Your task to perform on an android device: Turn on the flashlight Image 0: 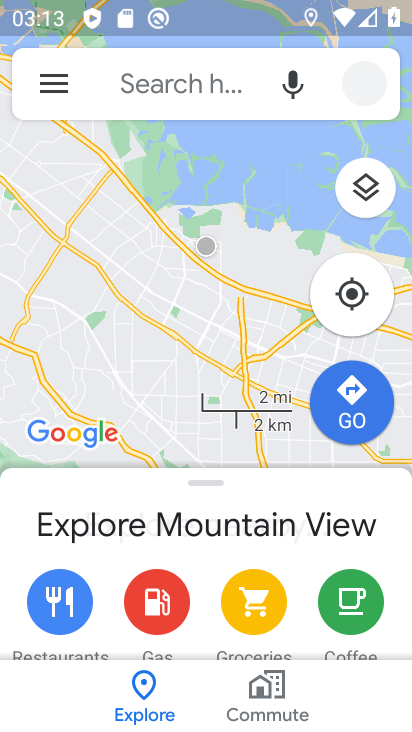
Step 0: drag from (327, 15) to (302, 521)
Your task to perform on an android device: Turn on the flashlight Image 1: 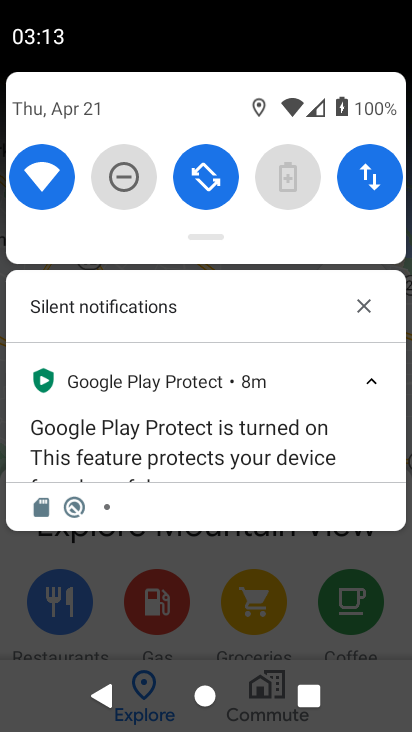
Step 1: drag from (241, 219) to (228, 569)
Your task to perform on an android device: Turn on the flashlight Image 2: 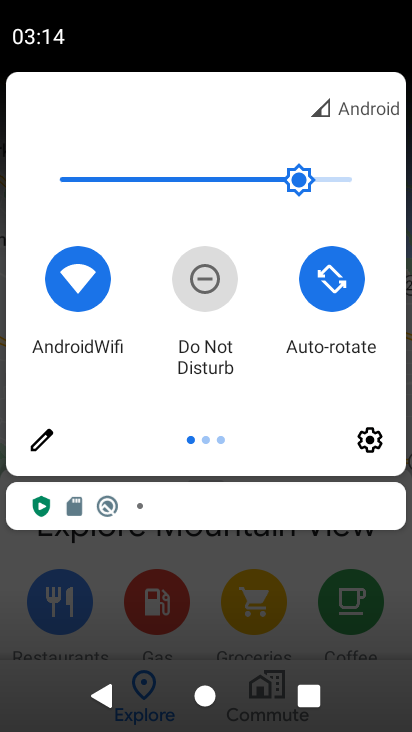
Step 2: drag from (200, 413) to (224, 726)
Your task to perform on an android device: Turn on the flashlight Image 3: 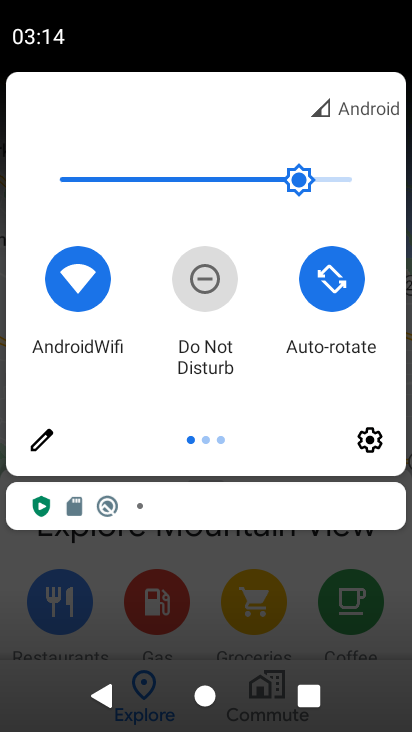
Step 3: click (40, 437)
Your task to perform on an android device: Turn on the flashlight Image 4: 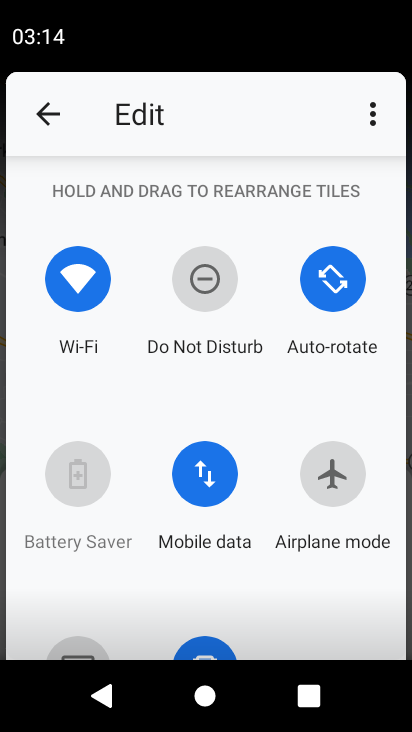
Step 4: task complete